Your task to perform on an android device: Open the calendar app, open the side menu, and click the "Day" option Image 0: 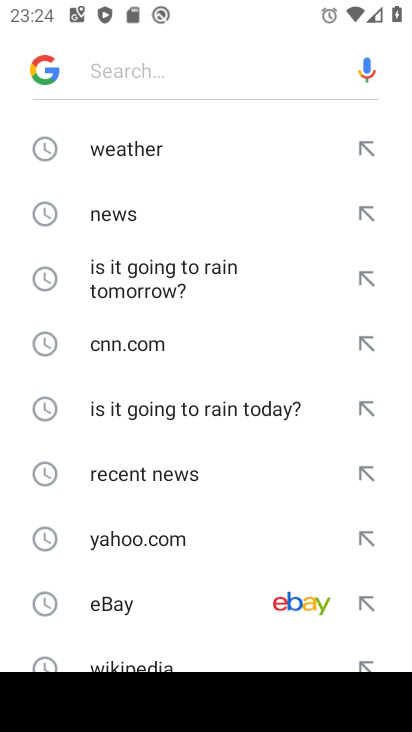
Step 0: press home button
Your task to perform on an android device: Open the calendar app, open the side menu, and click the "Day" option Image 1: 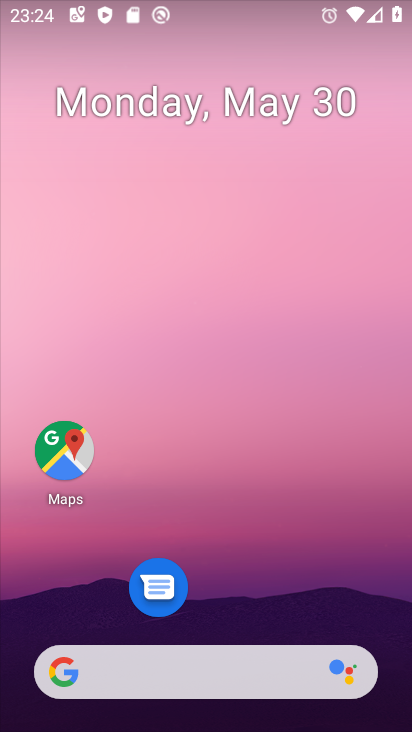
Step 1: drag from (219, 633) to (238, 122)
Your task to perform on an android device: Open the calendar app, open the side menu, and click the "Day" option Image 2: 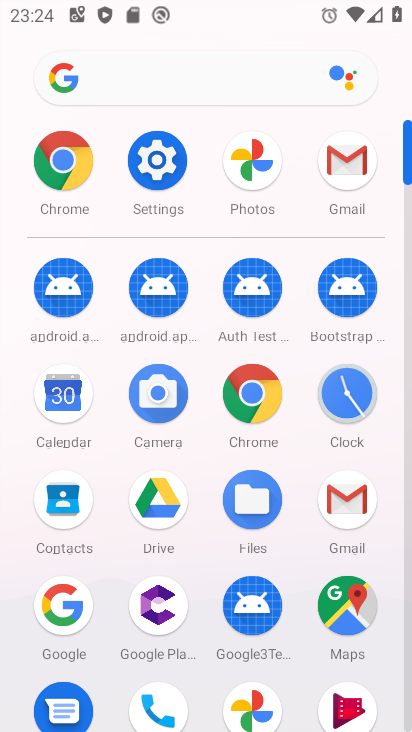
Step 2: click (63, 404)
Your task to perform on an android device: Open the calendar app, open the side menu, and click the "Day" option Image 3: 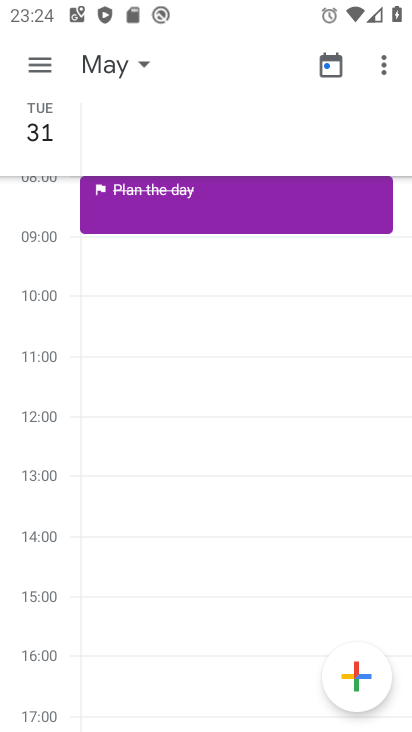
Step 3: click (23, 67)
Your task to perform on an android device: Open the calendar app, open the side menu, and click the "Day" option Image 4: 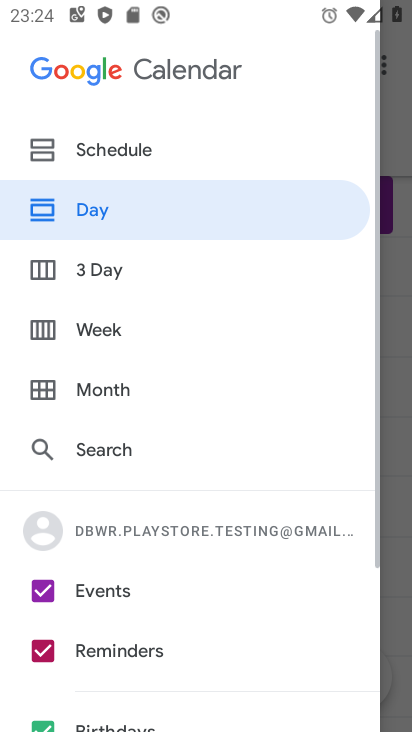
Step 4: click (120, 208)
Your task to perform on an android device: Open the calendar app, open the side menu, and click the "Day" option Image 5: 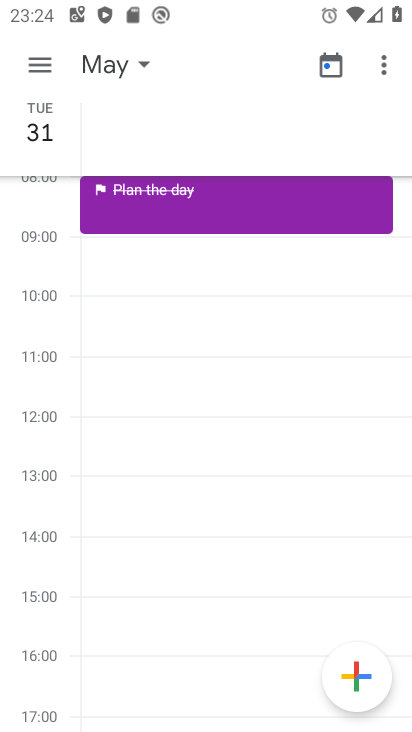
Step 5: task complete